Your task to perform on an android device: Go to Reddit.com Image 0: 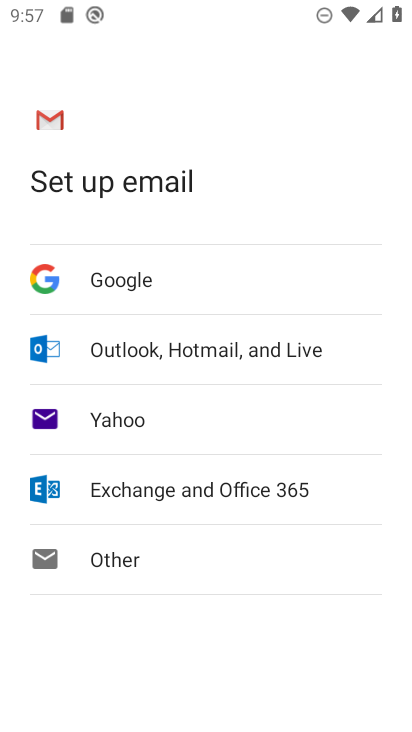
Step 0: press home button
Your task to perform on an android device: Go to Reddit.com Image 1: 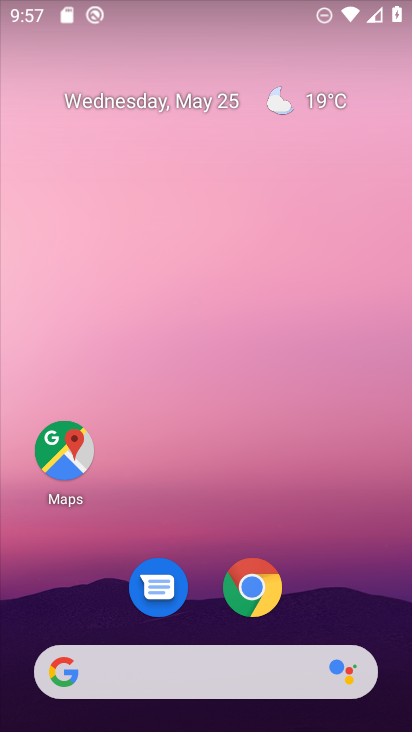
Step 1: click (261, 591)
Your task to perform on an android device: Go to Reddit.com Image 2: 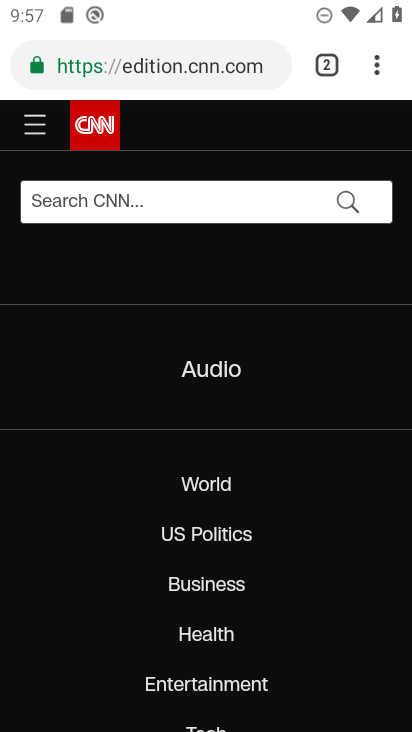
Step 2: click (273, 68)
Your task to perform on an android device: Go to Reddit.com Image 3: 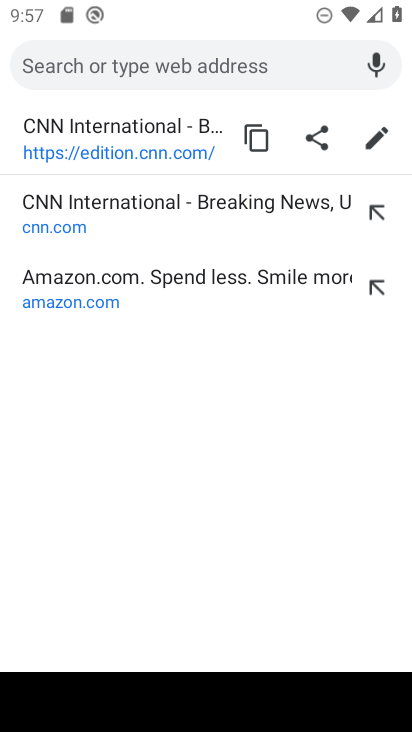
Step 3: type "reddit.com"
Your task to perform on an android device: Go to Reddit.com Image 4: 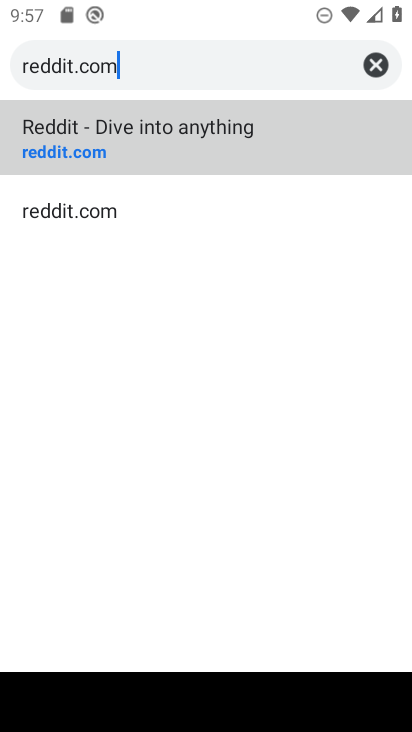
Step 4: click (77, 129)
Your task to perform on an android device: Go to Reddit.com Image 5: 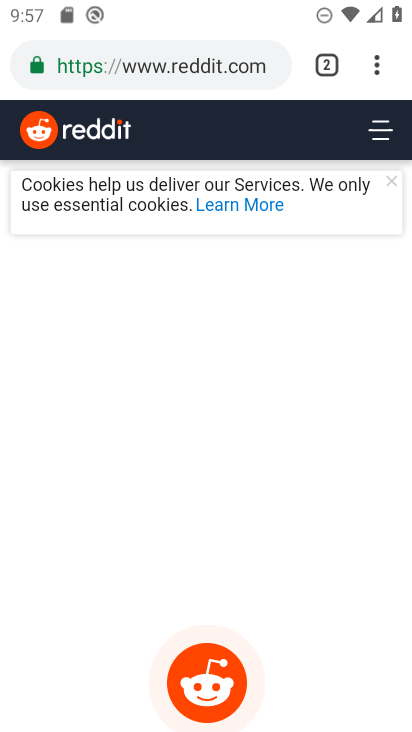
Step 5: task complete